Your task to perform on an android device: Go to Reddit.com Image 0: 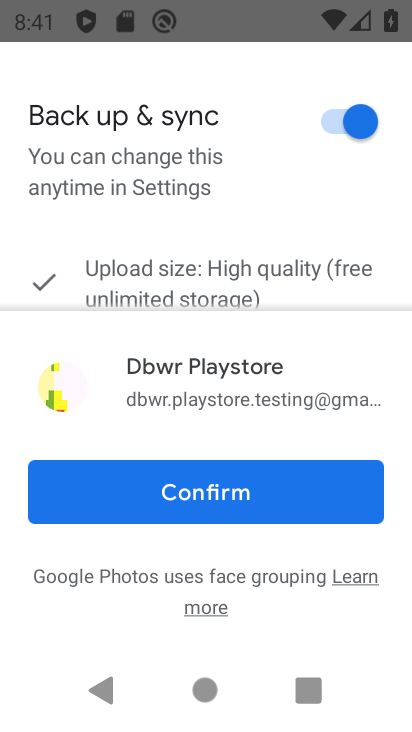
Step 0: press home button
Your task to perform on an android device: Go to Reddit.com Image 1: 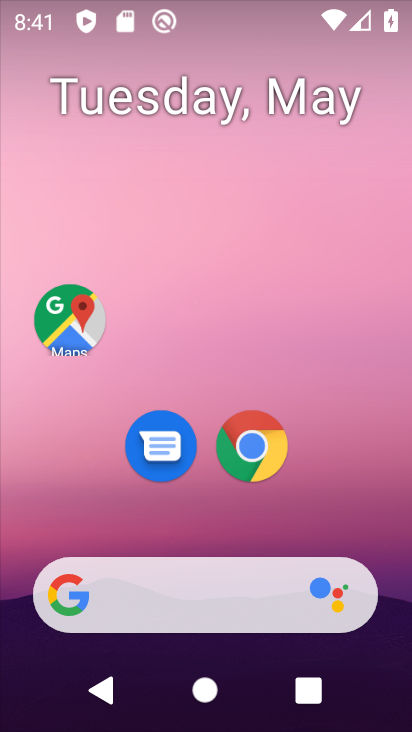
Step 1: drag from (371, 549) to (379, 305)
Your task to perform on an android device: Go to Reddit.com Image 2: 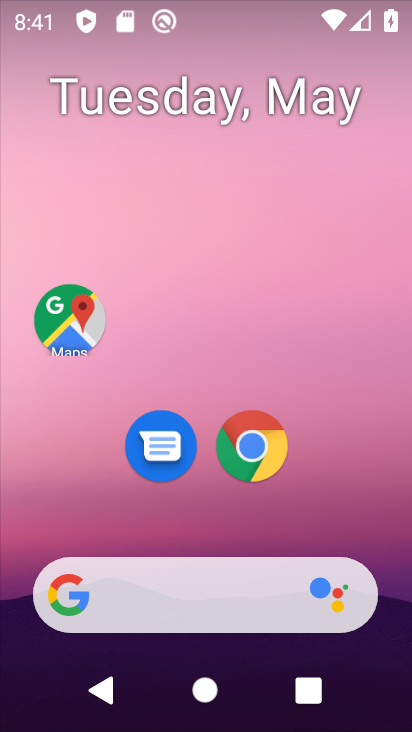
Step 2: drag from (385, 559) to (388, 229)
Your task to perform on an android device: Go to Reddit.com Image 3: 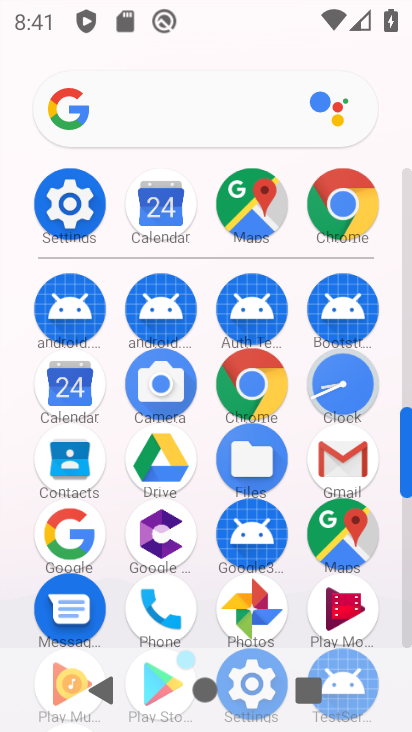
Step 3: click (260, 395)
Your task to perform on an android device: Go to Reddit.com Image 4: 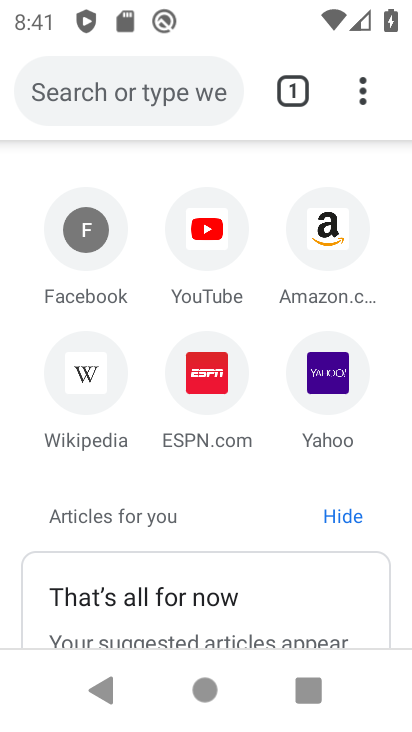
Step 4: click (186, 79)
Your task to perform on an android device: Go to Reddit.com Image 5: 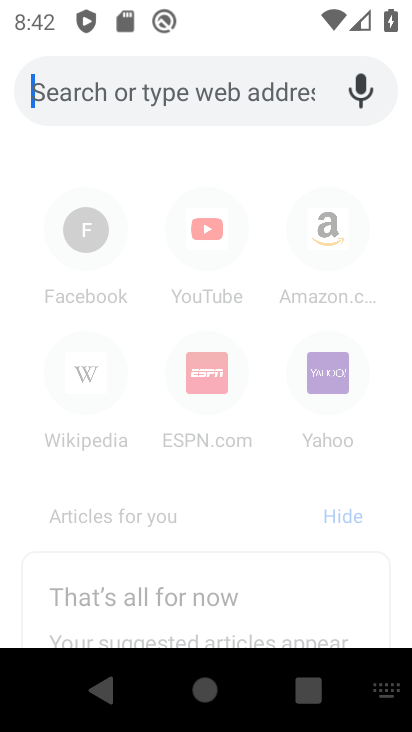
Step 5: type "reddit.com"
Your task to perform on an android device: Go to Reddit.com Image 6: 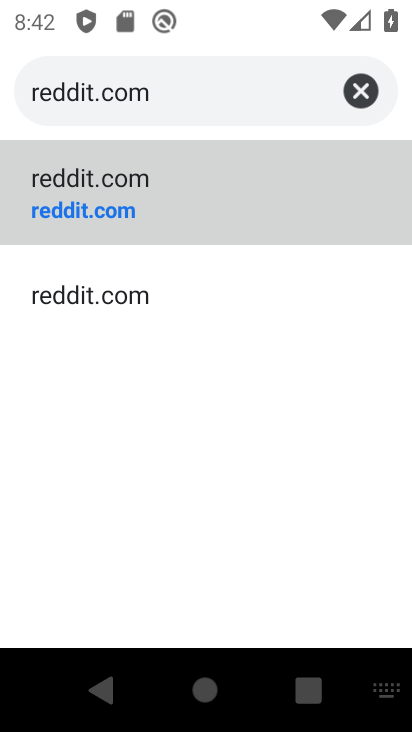
Step 6: click (144, 177)
Your task to perform on an android device: Go to Reddit.com Image 7: 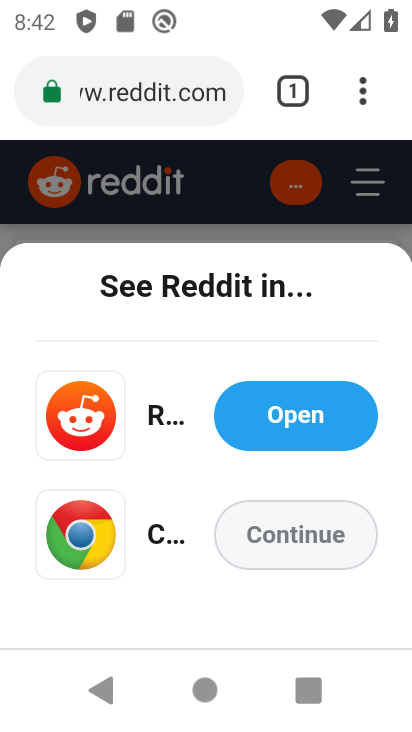
Step 7: task complete